Your task to perform on an android device: Look up the best rated headphones on Amazon. Image 0: 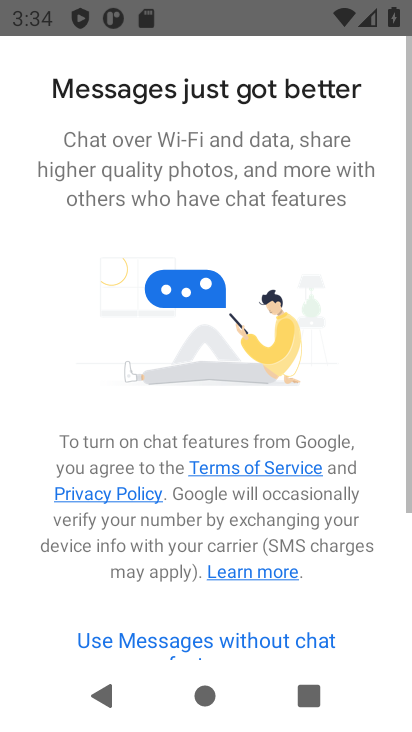
Step 0: press home button
Your task to perform on an android device: Look up the best rated headphones on Amazon. Image 1: 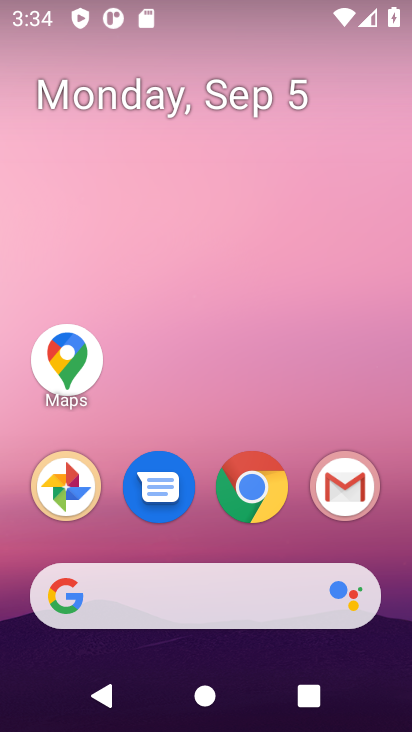
Step 1: drag from (291, 515) to (265, 93)
Your task to perform on an android device: Look up the best rated headphones on Amazon. Image 2: 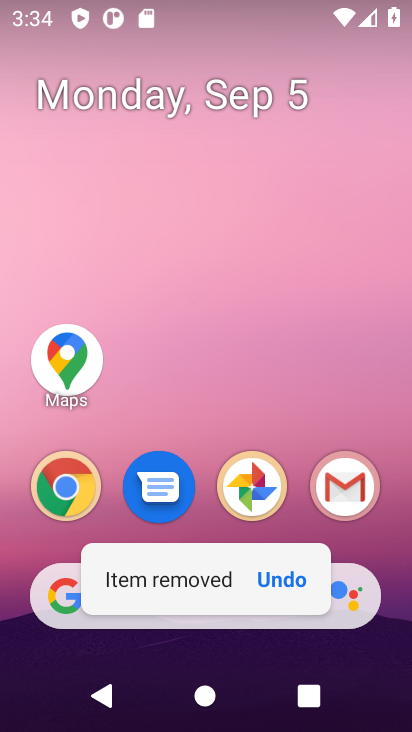
Step 2: click (311, 215)
Your task to perform on an android device: Look up the best rated headphones on Amazon. Image 3: 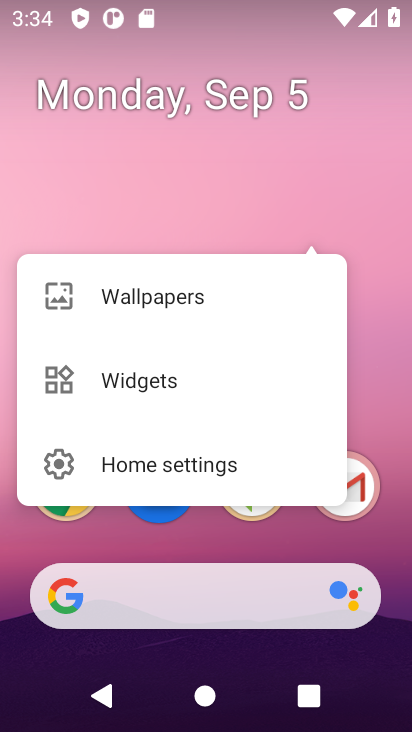
Step 3: click (367, 398)
Your task to perform on an android device: Look up the best rated headphones on Amazon. Image 4: 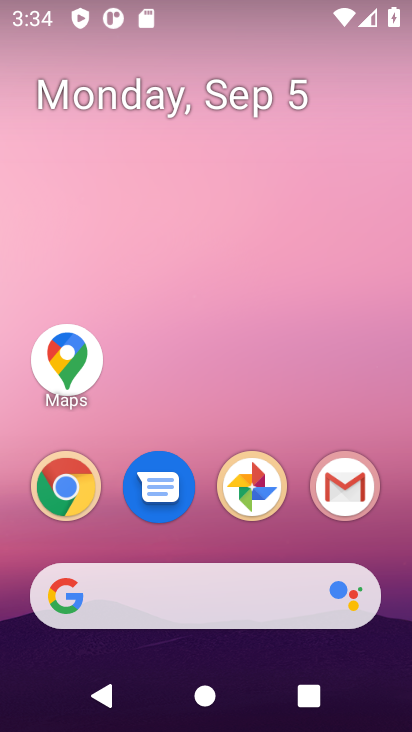
Step 4: drag from (219, 536) to (245, 108)
Your task to perform on an android device: Look up the best rated headphones on Amazon. Image 5: 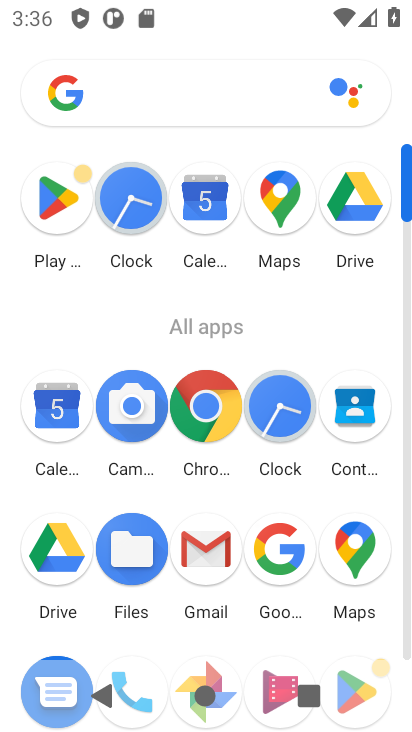
Step 5: click (202, 417)
Your task to perform on an android device: Look up the best rated headphones on Amazon. Image 6: 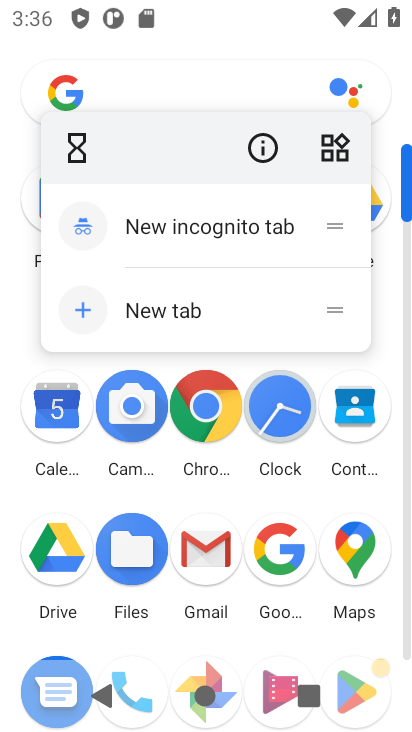
Step 6: click (203, 393)
Your task to perform on an android device: Look up the best rated headphones on Amazon. Image 7: 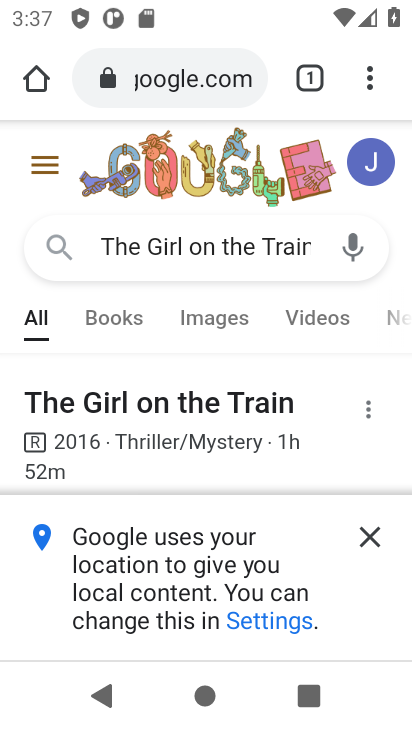
Step 7: click (195, 81)
Your task to perform on an android device: Look up the best rated headphones on Amazon. Image 8: 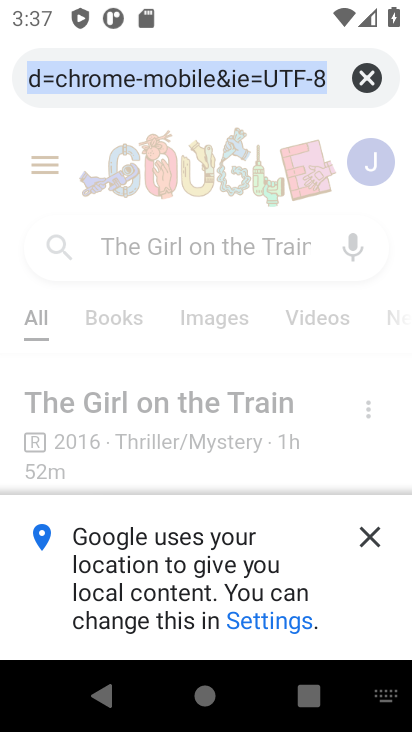
Step 8: type "Amazon"
Your task to perform on an android device: Look up the best rated headphones on Amazon. Image 9: 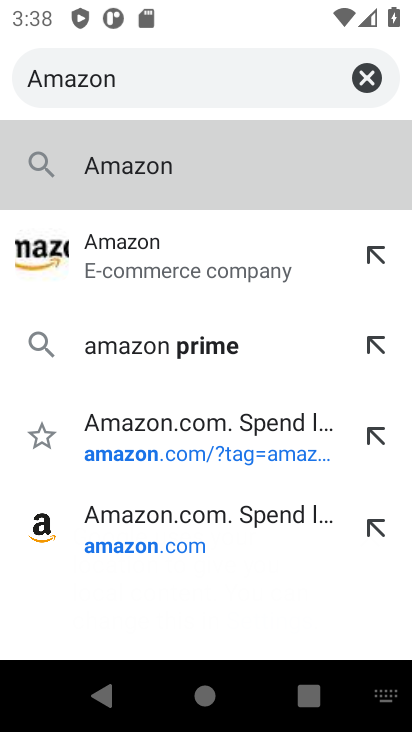
Step 9: click (125, 160)
Your task to perform on an android device: Look up the best rated headphones on Amazon. Image 10: 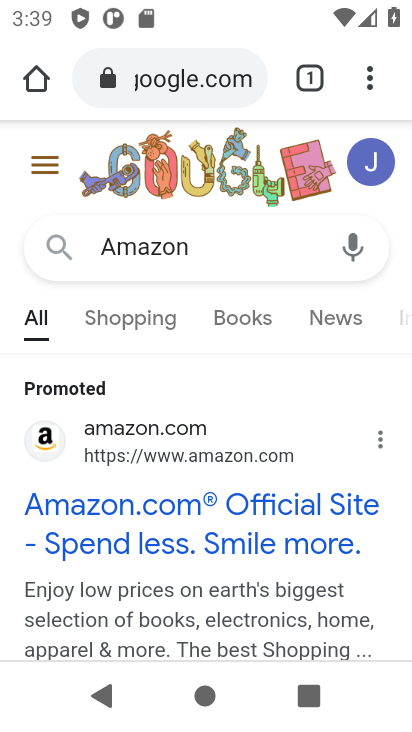
Step 10: click (44, 494)
Your task to perform on an android device: Look up the best rated headphones on Amazon. Image 11: 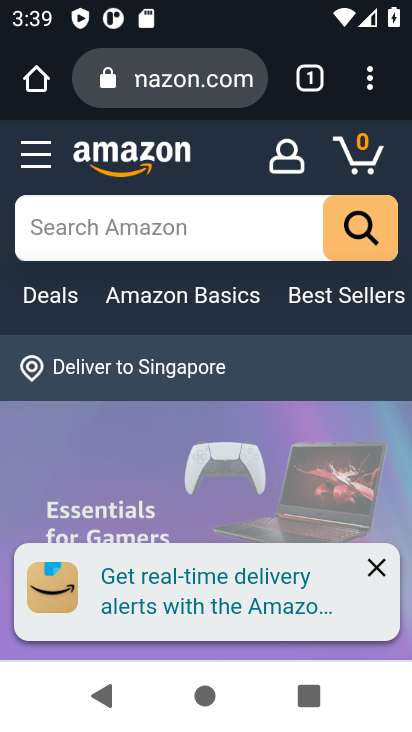
Step 11: click (145, 231)
Your task to perform on an android device: Look up the best rated headphones on Amazon. Image 12: 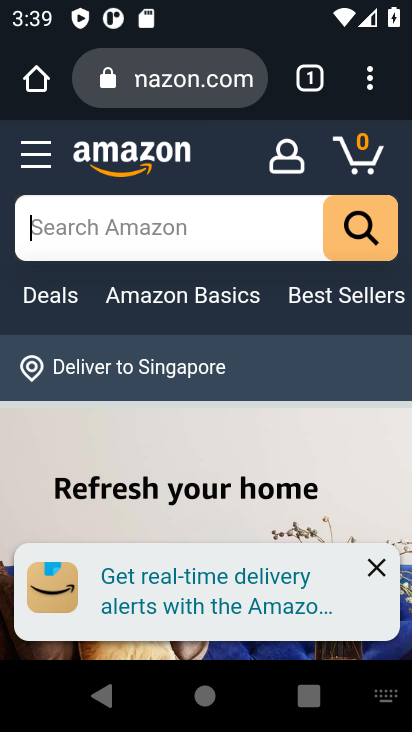
Step 12: type " best rated headphones"
Your task to perform on an android device: Look up the best rated headphones on Amazon. Image 13: 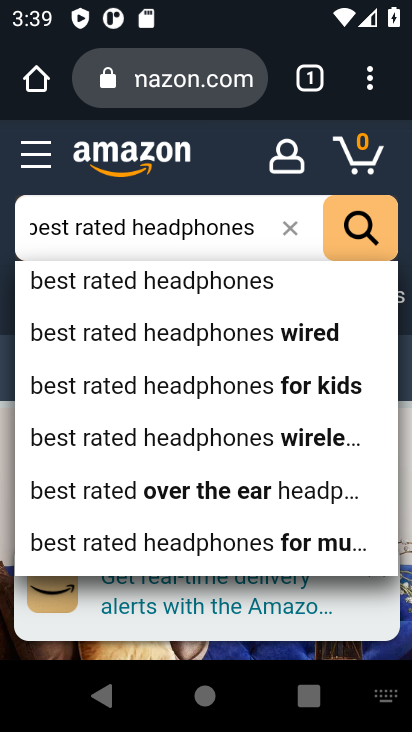
Step 13: click (165, 274)
Your task to perform on an android device: Look up the best rated headphones on Amazon. Image 14: 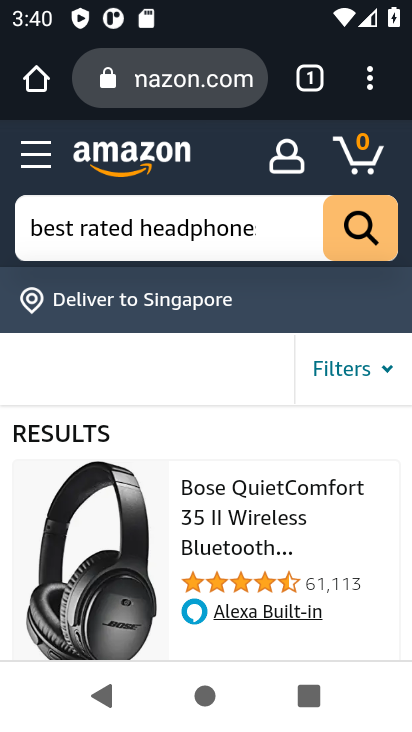
Step 14: task complete